Your task to perform on an android device: turn on data saver in the chrome app Image 0: 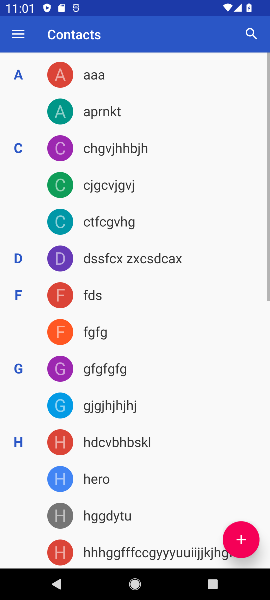
Step 0: press back button
Your task to perform on an android device: turn on data saver in the chrome app Image 1: 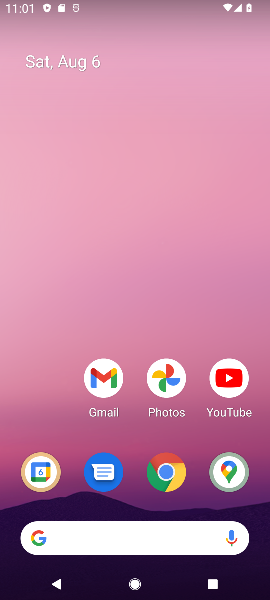
Step 1: drag from (211, 490) to (151, 18)
Your task to perform on an android device: turn on data saver in the chrome app Image 2: 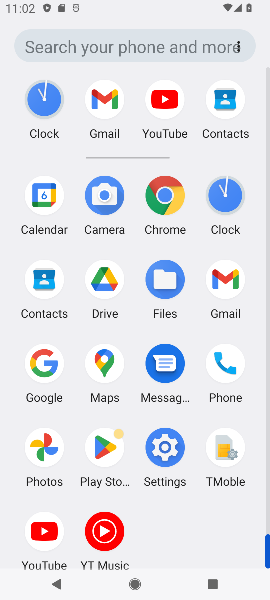
Step 2: click (173, 186)
Your task to perform on an android device: turn on data saver in the chrome app Image 3: 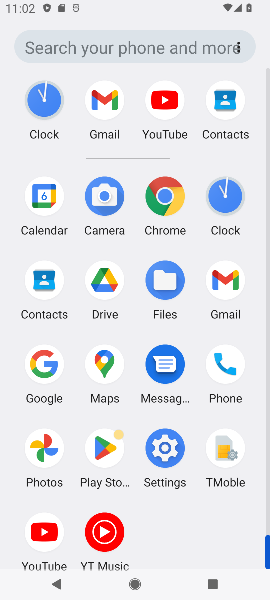
Step 3: click (168, 192)
Your task to perform on an android device: turn on data saver in the chrome app Image 4: 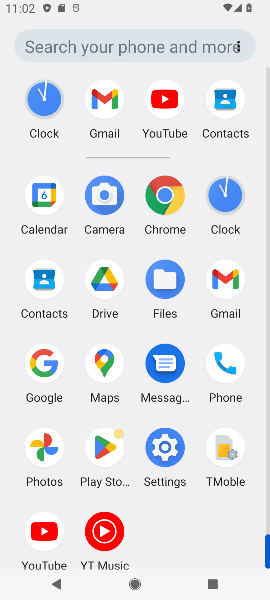
Step 4: click (168, 196)
Your task to perform on an android device: turn on data saver in the chrome app Image 5: 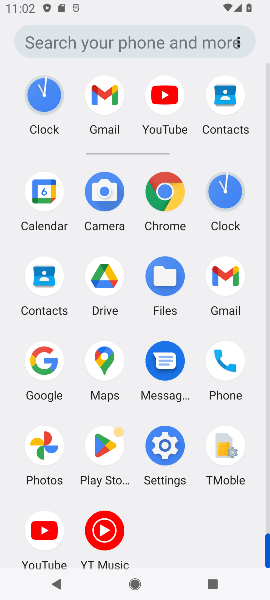
Step 5: click (171, 199)
Your task to perform on an android device: turn on data saver in the chrome app Image 6: 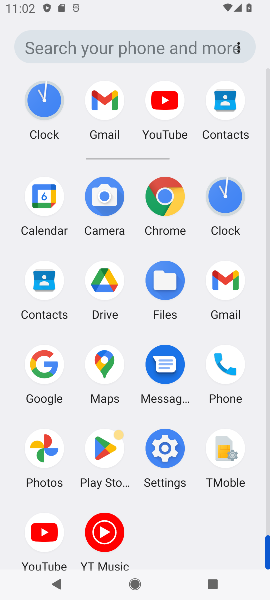
Step 6: click (166, 196)
Your task to perform on an android device: turn on data saver in the chrome app Image 7: 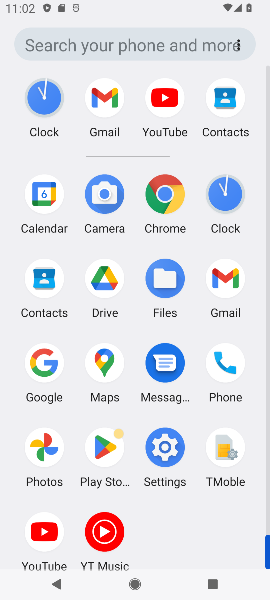
Step 7: click (166, 196)
Your task to perform on an android device: turn on data saver in the chrome app Image 8: 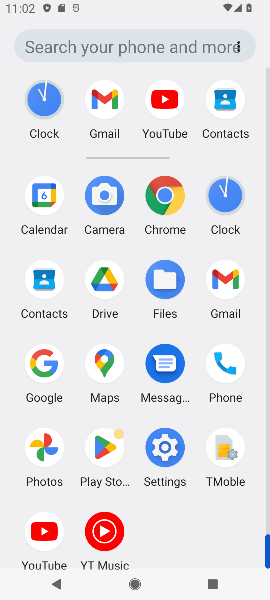
Step 8: click (166, 196)
Your task to perform on an android device: turn on data saver in the chrome app Image 9: 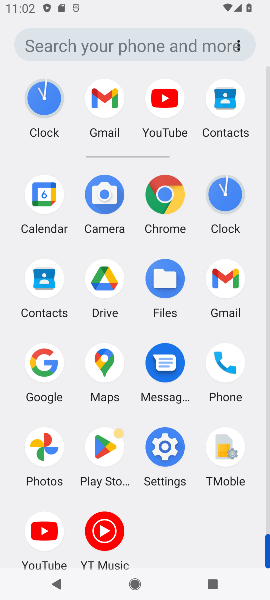
Step 9: click (166, 196)
Your task to perform on an android device: turn on data saver in the chrome app Image 10: 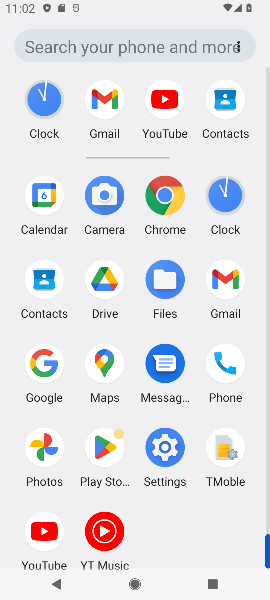
Step 10: click (166, 194)
Your task to perform on an android device: turn on data saver in the chrome app Image 11: 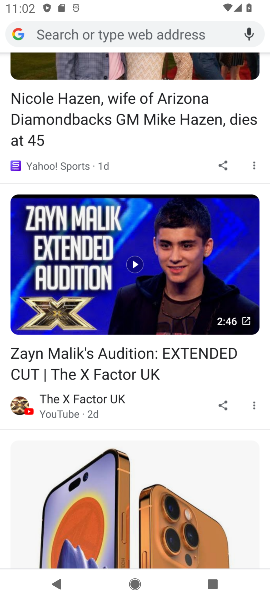
Step 11: click (169, 192)
Your task to perform on an android device: turn on data saver in the chrome app Image 12: 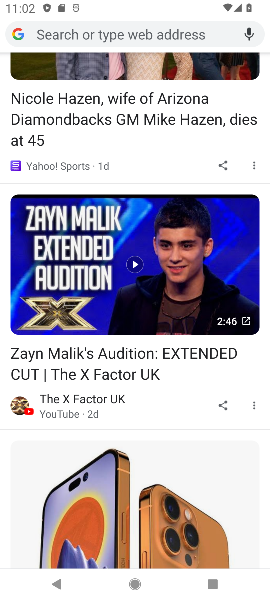
Step 12: drag from (136, 171) to (175, 413)
Your task to perform on an android device: turn on data saver in the chrome app Image 13: 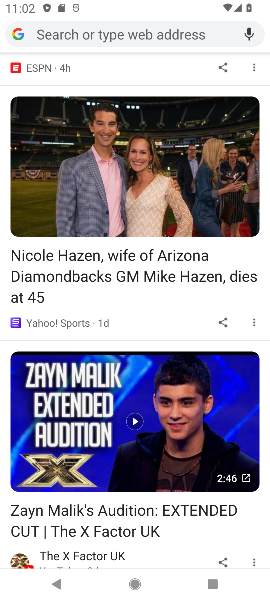
Step 13: drag from (116, 214) to (116, 321)
Your task to perform on an android device: turn on data saver in the chrome app Image 14: 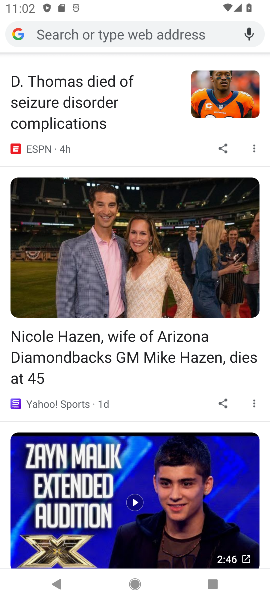
Step 14: drag from (104, 236) to (124, 290)
Your task to perform on an android device: turn on data saver in the chrome app Image 15: 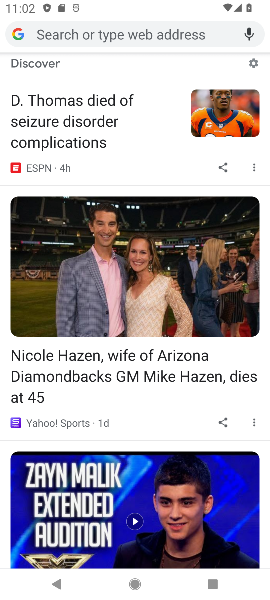
Step 15: drag from (225, 92) to (206, 368)
Your task to perform on an android device: turn on data saver in the chrome app Image 16: 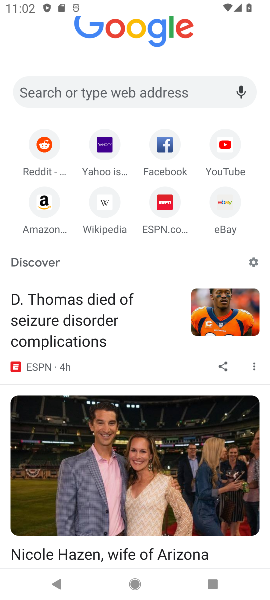
Step 16: drag from (168, 124) to (144, 341)
Your task to perform on an android device: turn on data saver in the chrome app Image 17: 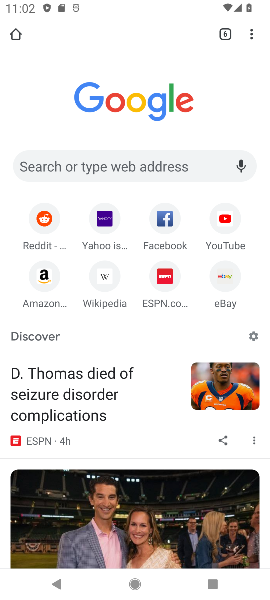
Step 17: drag from (249, 27) to (168, 363)
Your task to perform on an android device: turn on data saver in the chrome app Image 18: 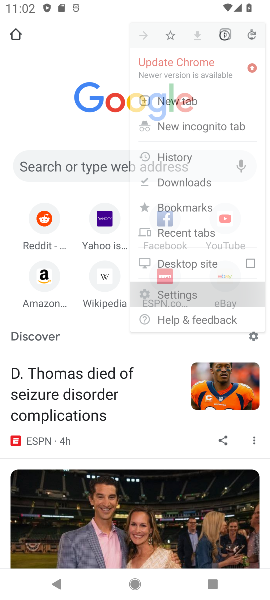
Step 18: click (168, 363)
Your task to perform on an android device: turn on data saver in the chrome app Image 19: 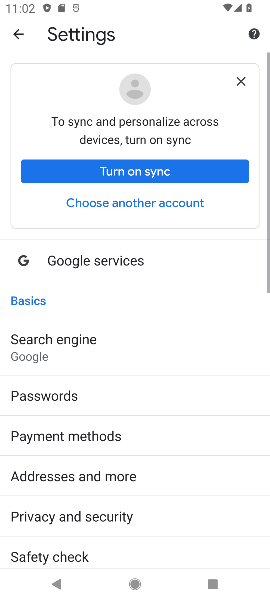
Step 19: drag from (110, 421) to (61, 184)
Your task to perform on an android device: turn on data saver in the chrome app Image 20: 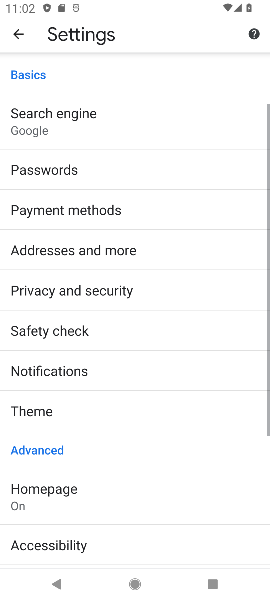
Step 20: drag from (121, 466) to (115, 199)
Your task to perform on an android device: turn on data saver in the chrome app Image 21: 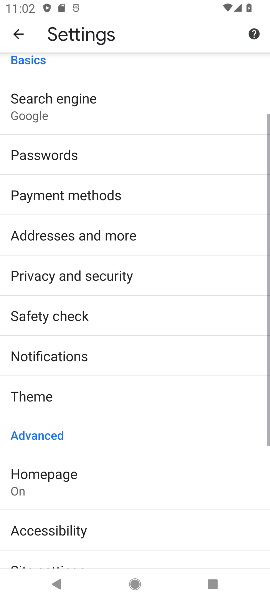
Step 21: drag from (168, 399) to (176, 107)
Your task to perform on an android device: turn on data saver in the chrome app Image 22: 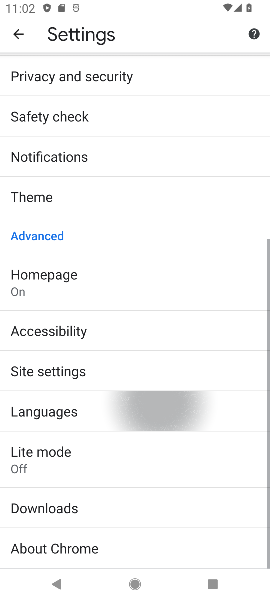
Step 22: drag from (188, 382) to (180, 138)
Your task to perform on an android device: turn on data saver in the chrome app Image 23: 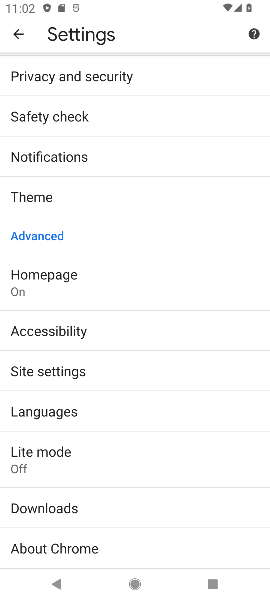
Step 23: click (47, 460)
Your task to perform on an android device: turn on data saver in the chrome app Image 24: 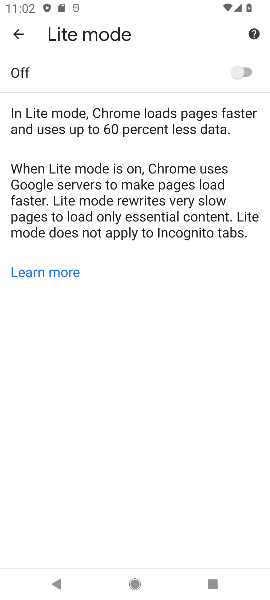
Step 24: click (234, 70)
Your task to perform on an android device: turn on data saver in the chrome app Image 25: 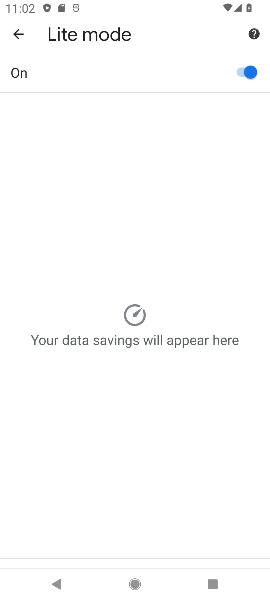
Step 25: task complete